Your task to perform on an android device: Go to location settings Image 0: 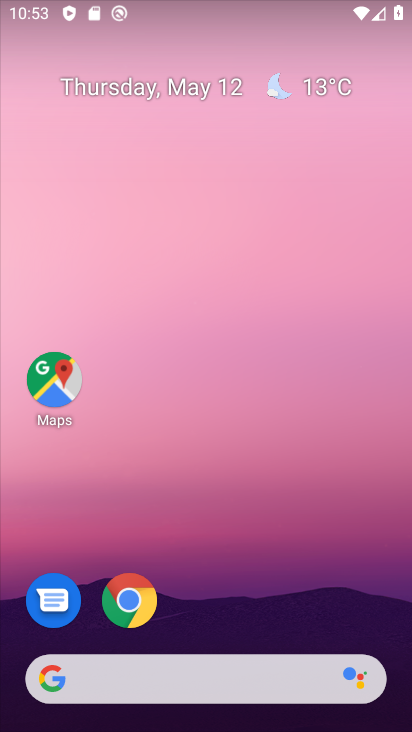
Step 0: drag from (395, 646) to (282, 193)
Your task to perform on an android device: Go to location settings Image 1: 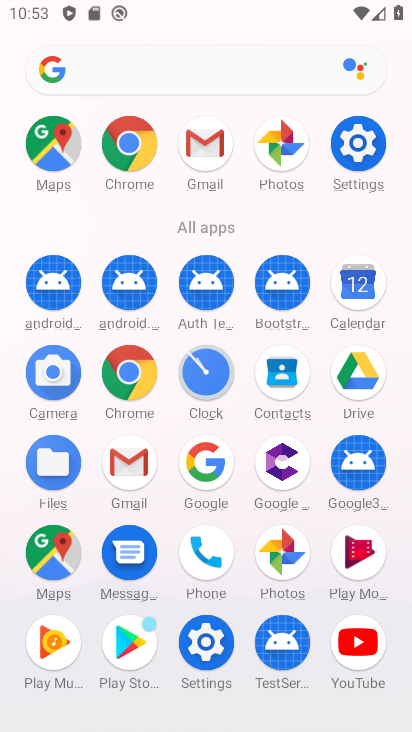
Step 1: click (206, 642)
Your task to perform on an android device: Go to location settings Image 2: 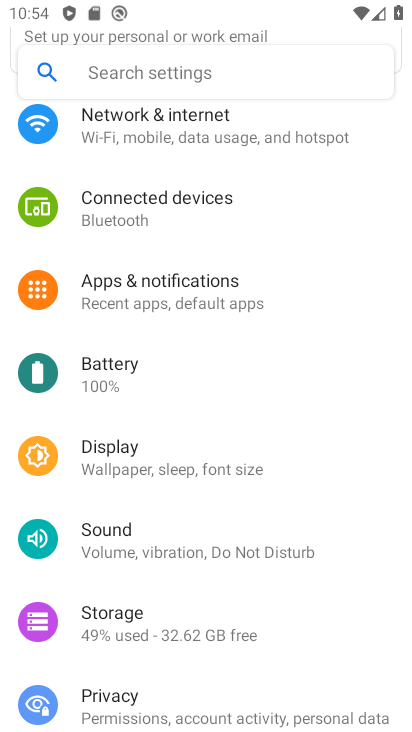
Step 2: drag from (217, 662) to (309, 273)
Your task to perform on an android device: Go to location settings Image 3: 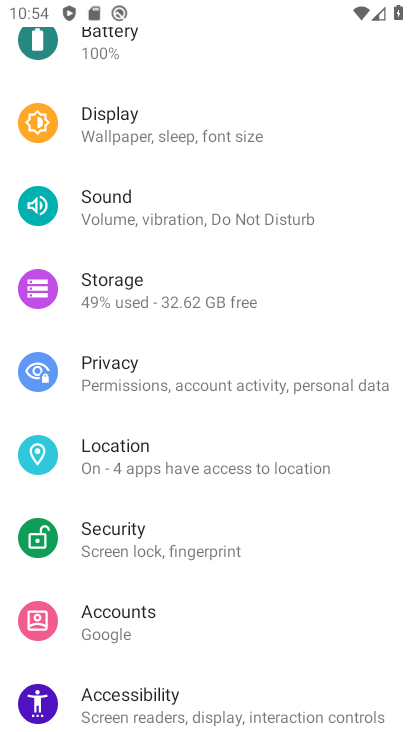
Step 3: click (89, 452)
Your task to perform on an android device: Go to location settings Image 4: 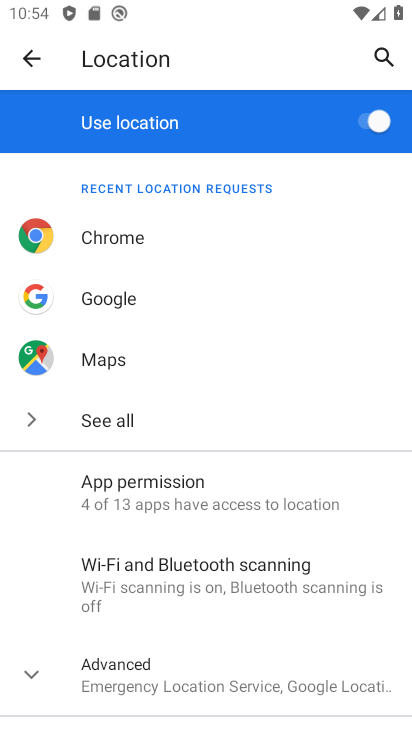
Step 4: click (33, 671)
Your task to perform on an android device: Go to location settings Image 5: 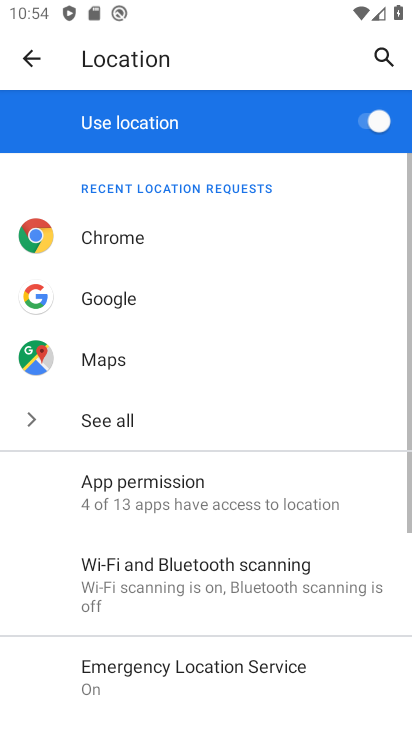
Step 5: task complete